Your task to perform on an android device: toggle improve location accuracy Image 0: 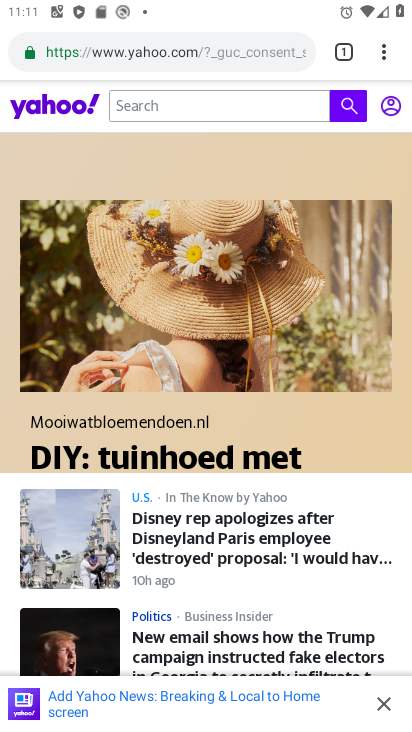
Step 0: press home button
Your task to perform on an android device: toggle improve location accuracy Image 1: 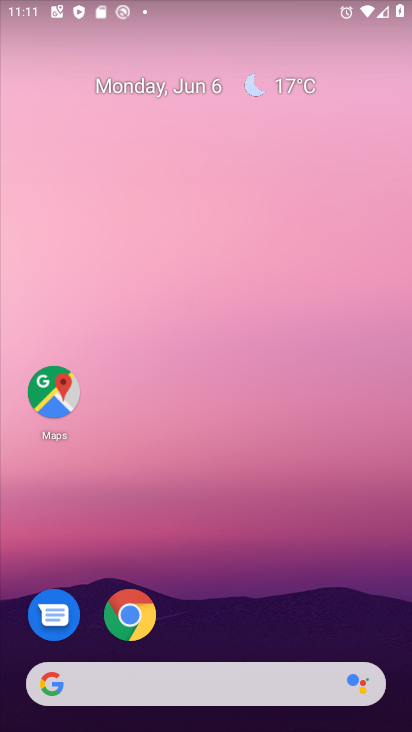
Step 1: drag from (226, 642) to (285, 46)
Your task to perform on an android device: toggle improve location accuracy Image 2: 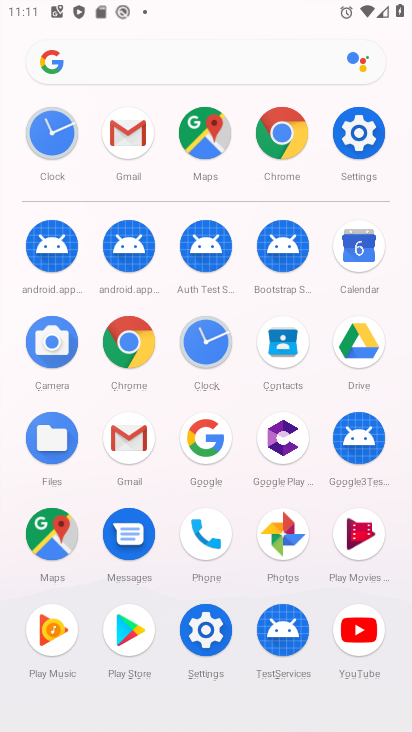
Step 2: click (358, 132)
Your task to perform on an android device: toggle improve location accuracy Image 3: 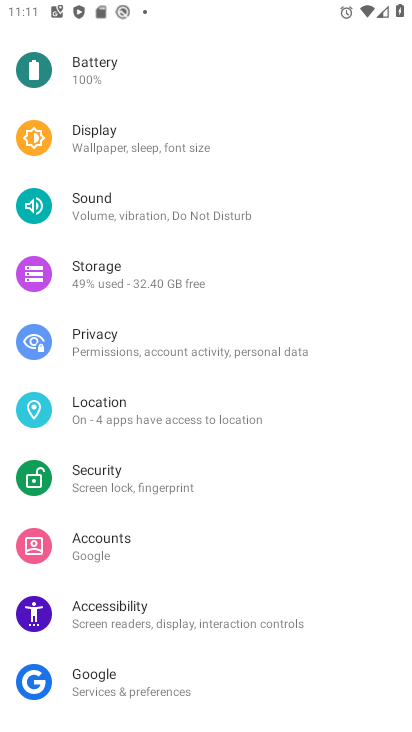
Step 3: click (138, 404)
Your task to perform on an android device: toggle improve location accuracy Image 4: 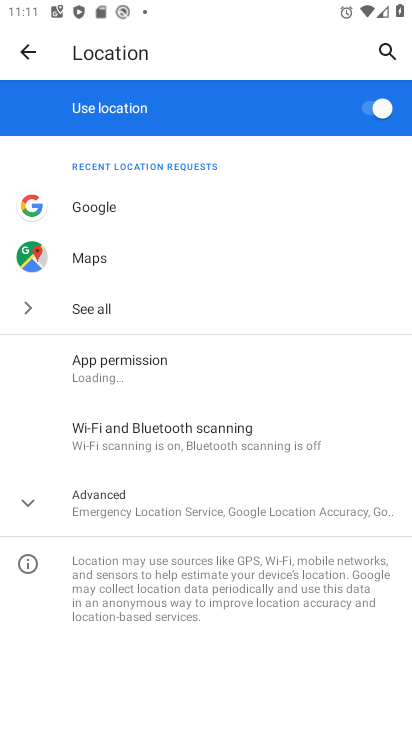
Step 4: click (117, 502)
Your task to perform on an android device: toggle improve location accuracy Image 5: 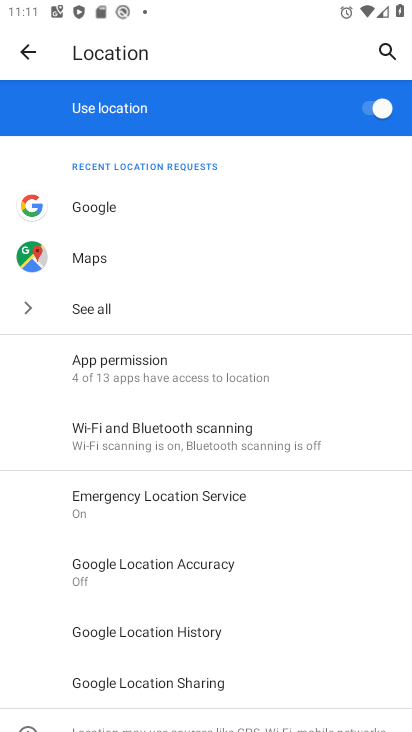
Step 5: click (185, 562)
Your task to perform on an android device: toggle improve location accuracy Image 6: 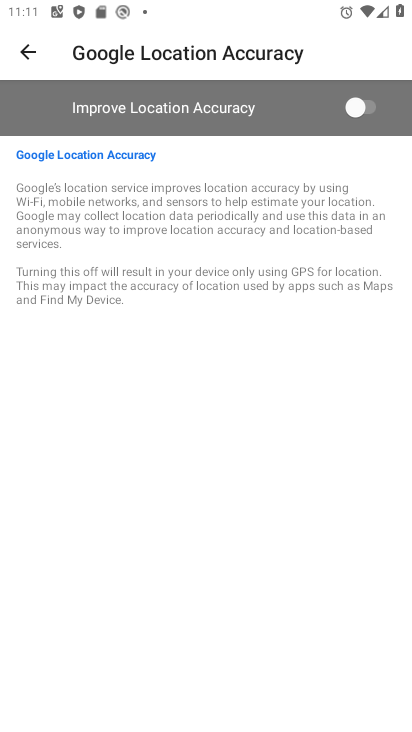
Step 6: click (366, 103)
Your task to perform on an android device: toggle improve location accuracy Image 7: 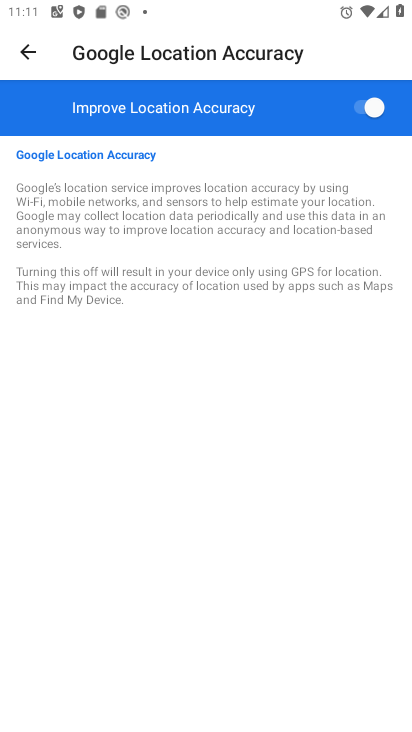
Step 7: task complete